Your task to perform on an android device: Open the calendar app, open the side menu, and click the "Day" option Image 0: 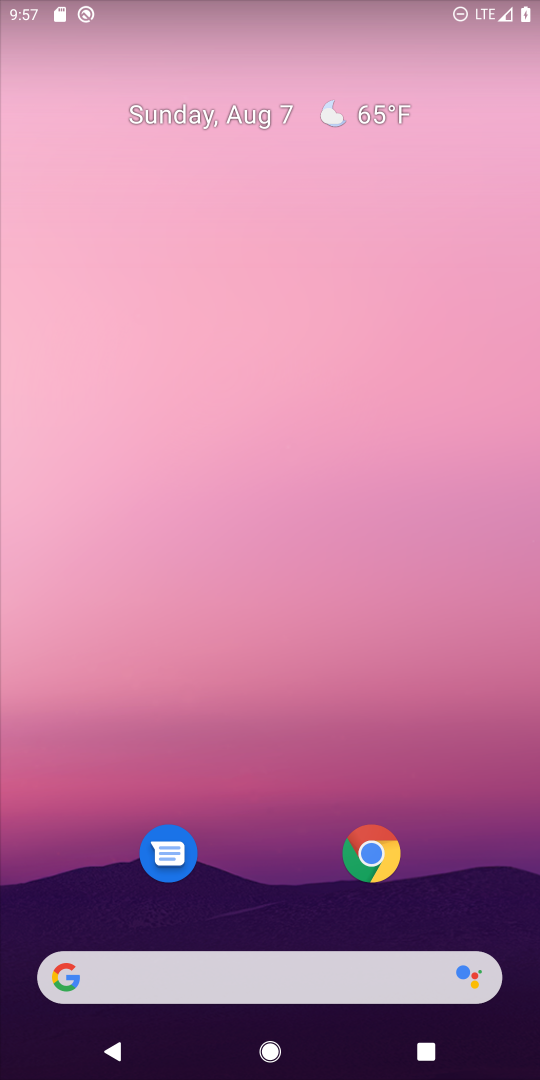
Step 0: drag from (233, 723) to (181, 271)
Your task to perform on an android device: Open the calendar app, open the side menu, and click the "Day" option Image 1: 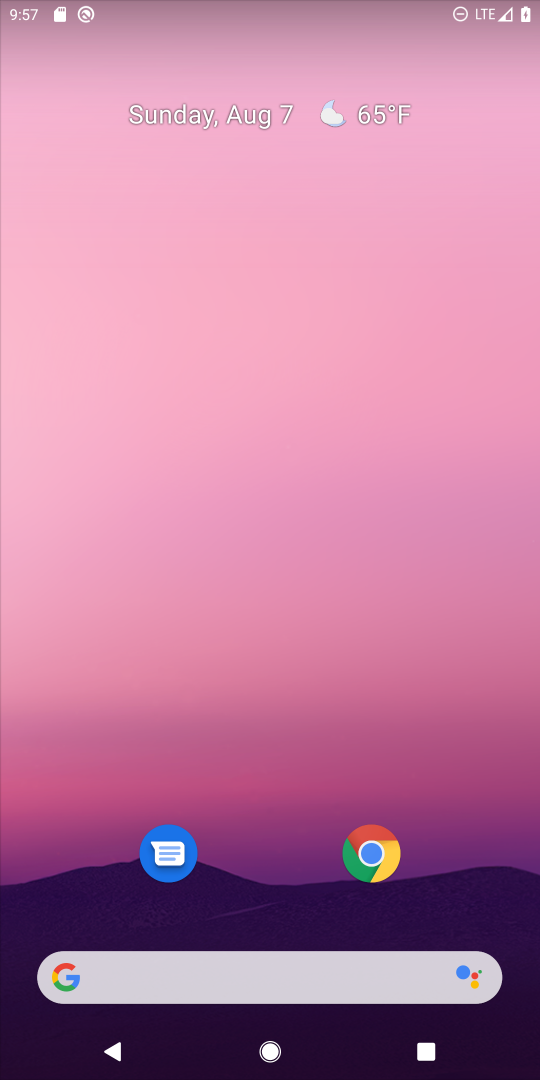
Step 1: click (330, 275)
Your task to perform on an android device: Open the calendar app, open the side menu, and click the "Day" option Image 2: 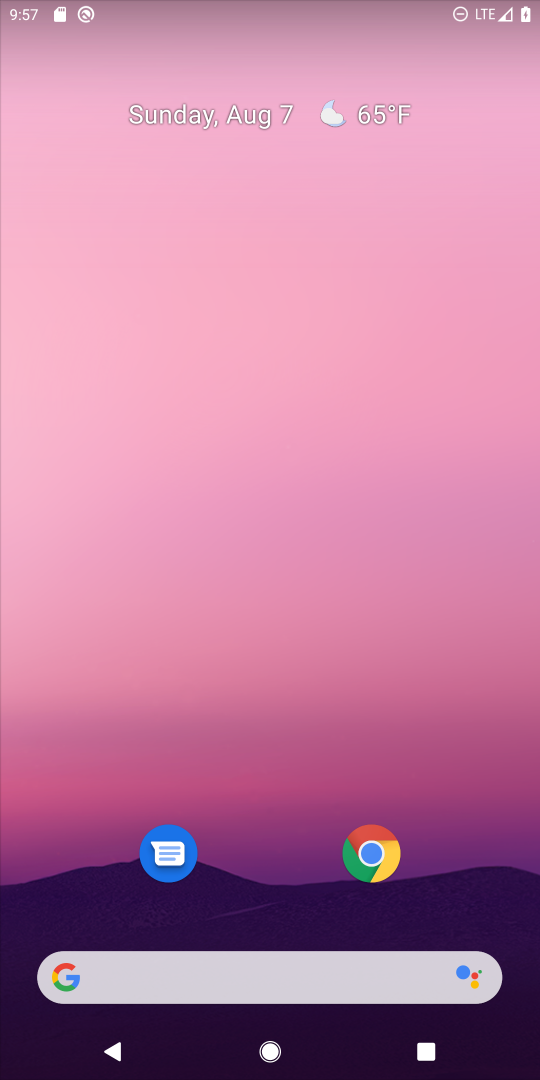
Step 2: drag from (225, 983) to (251, 256)
Your task to perform on an android device: Open the calendar app, open the side menu, and click the "Day" option Image 3: 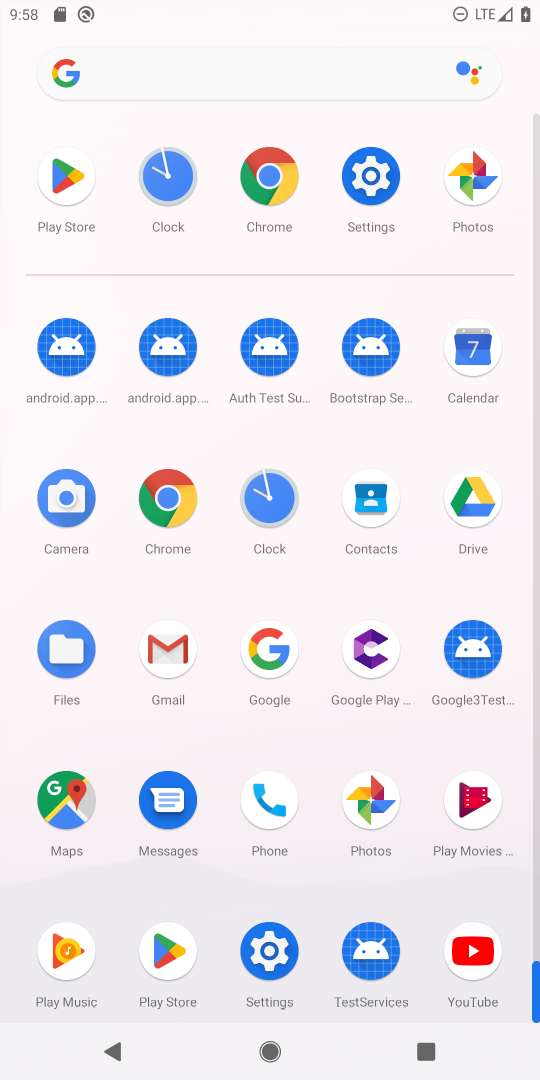
Step 3: click (478, 338)
Your task to perform on an android device: Open the calendar app, open the side menu, and click the "Day" option Image 4: 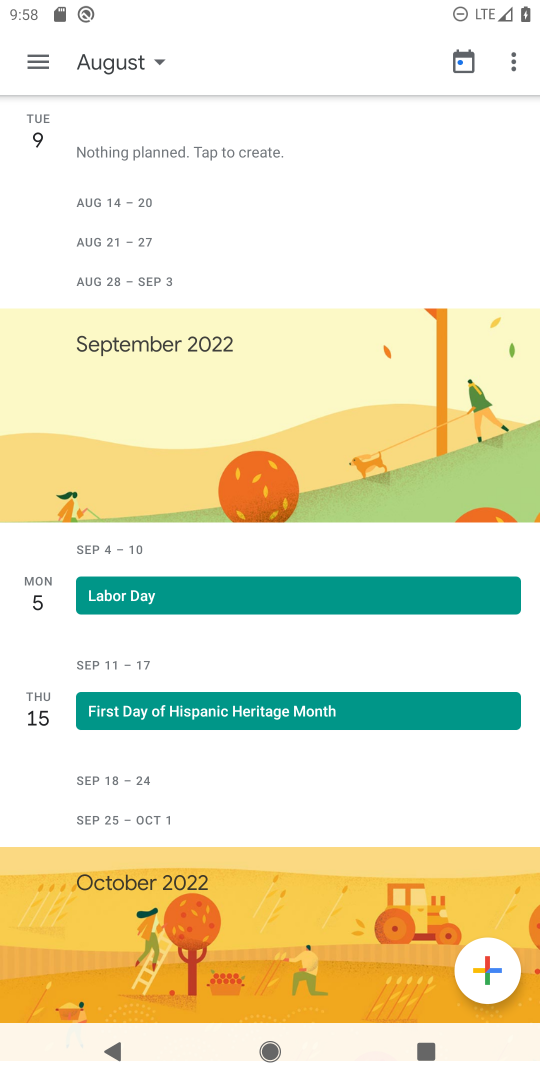
Step 4: click (36, 55)
Your task to perform on an android device: Open the calendar app, open the side menu, and click the "Day" option Image 5: 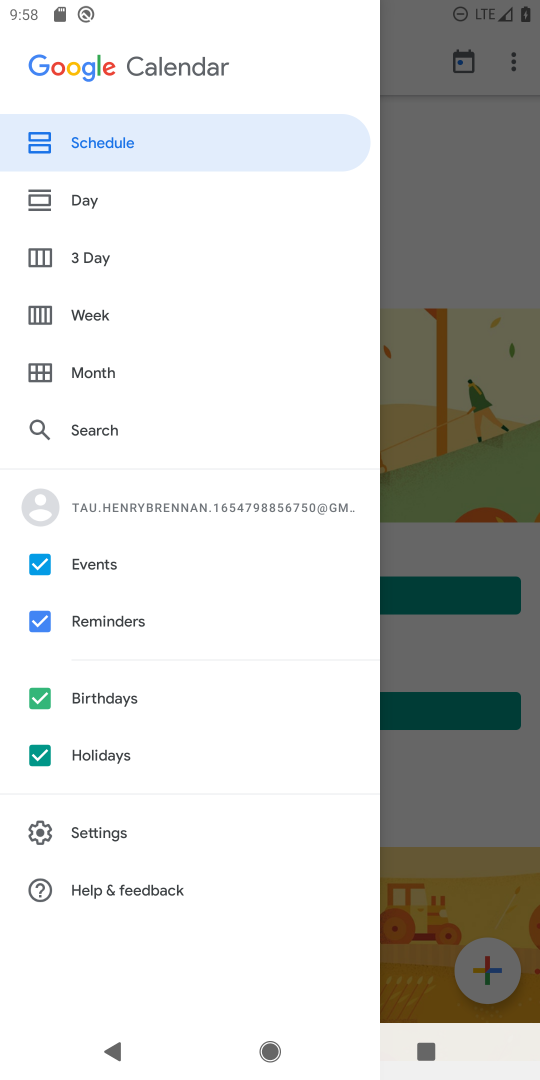
Step 5: click (95, 199)
Your task to perform on an android device: Open the calendar app, open the side menu, and click the "Day" option Image 6: 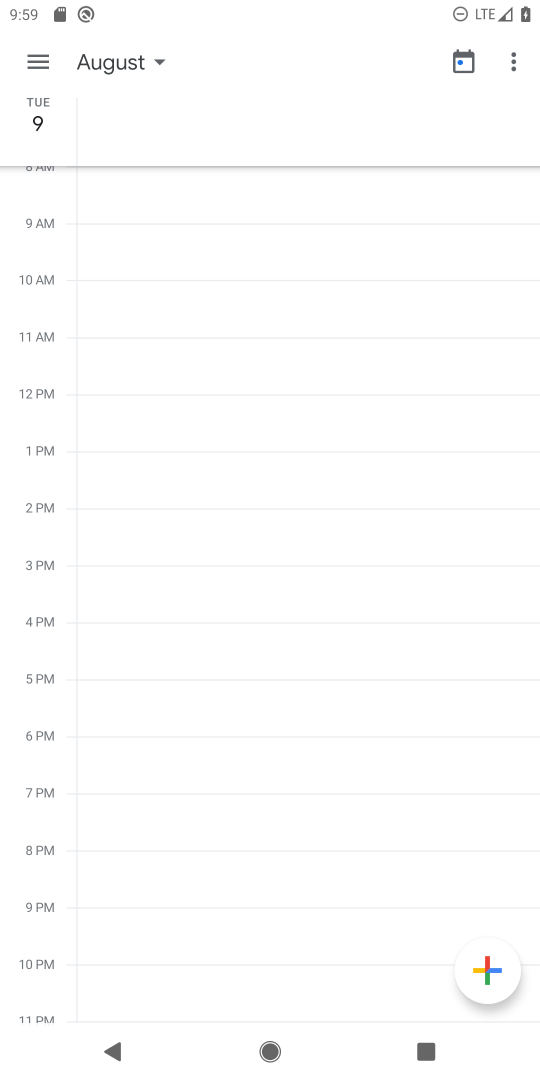
Step 6: task complete